Your task to perform on an android device: Go to Yahoo.com Image 0: 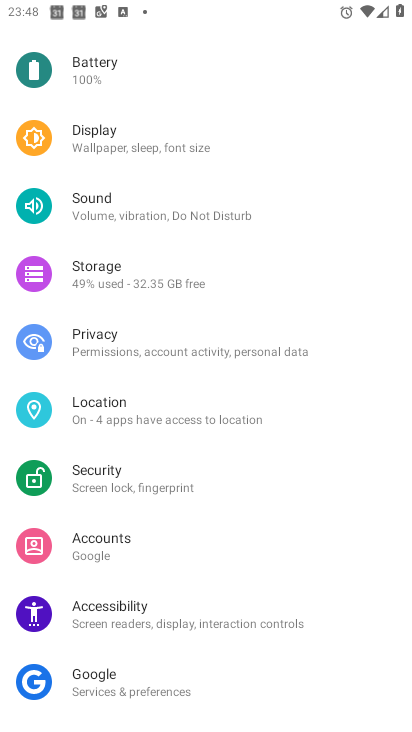
Step 0: press home button
Your task to perform on an android device: Go to Yahoo.com Image 1: 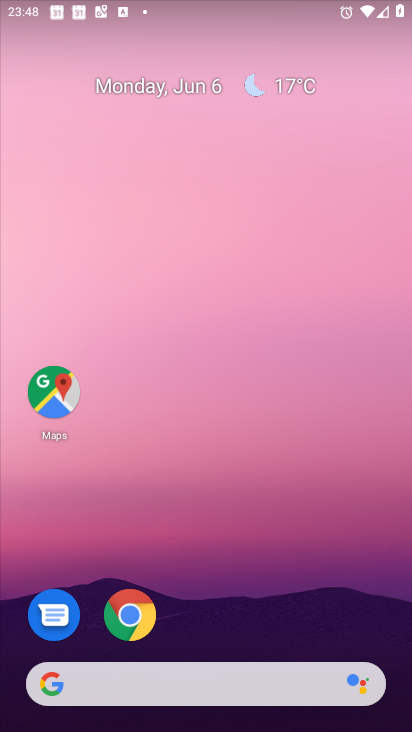
Step 1: click (131, 613)
Your task to perform on an android device: Go to Yahoo.com Image 2: 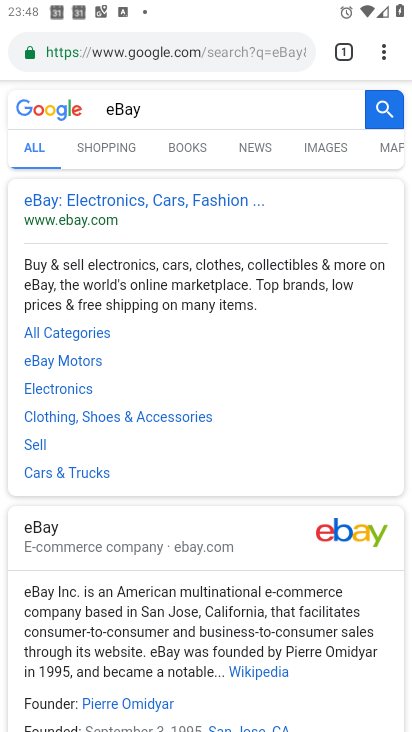
Step 2: click (305, 44)
Your task to perform on an android device: Go to Yahoo.com Image 3: 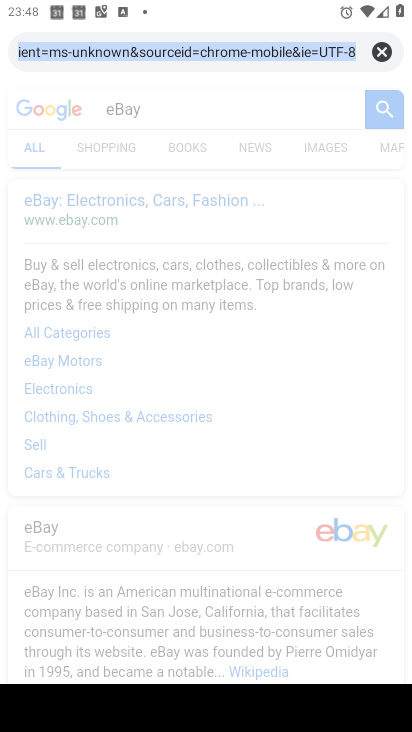
Step 3: click (379, 51)
Your task to perform on an android device: Go to Yahoo.com Image 4: 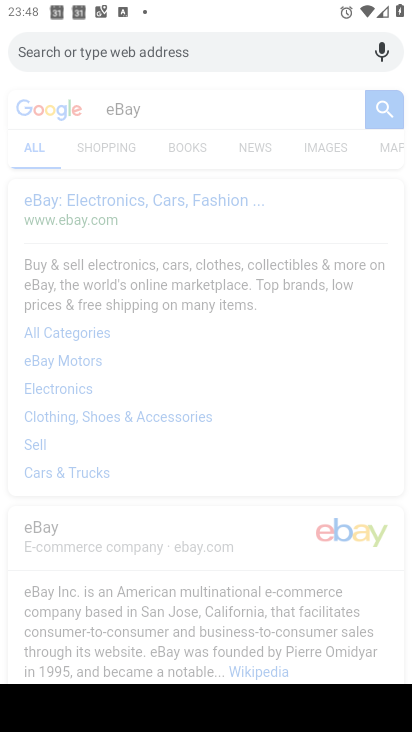
Step 4: type "Yahoo.com"
Your task to perform on an android device: Go to Yahoo.com Image 5: 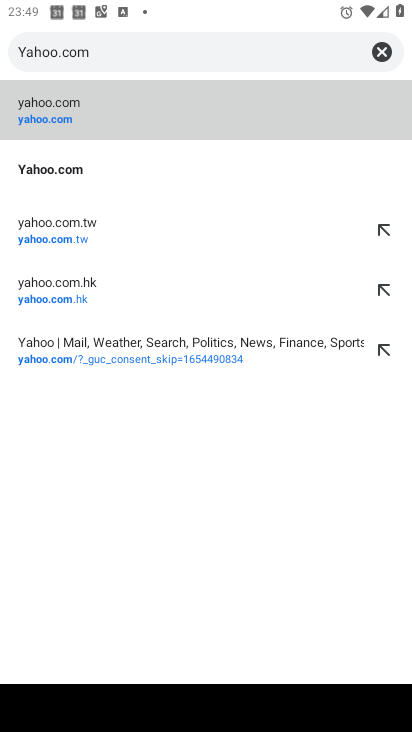
Step 5: click (67, 152)
Your task to perform on an android device: Go to Yahoo.com Image 6: 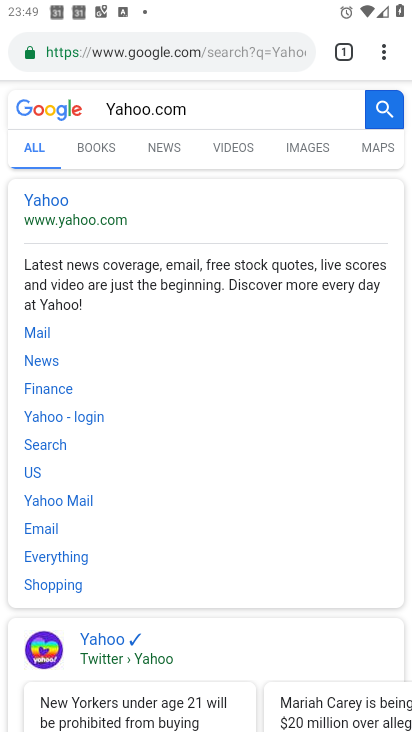
Step 6: task complete